Your task to perform on an android device: Open Yahoo.com Image 0: 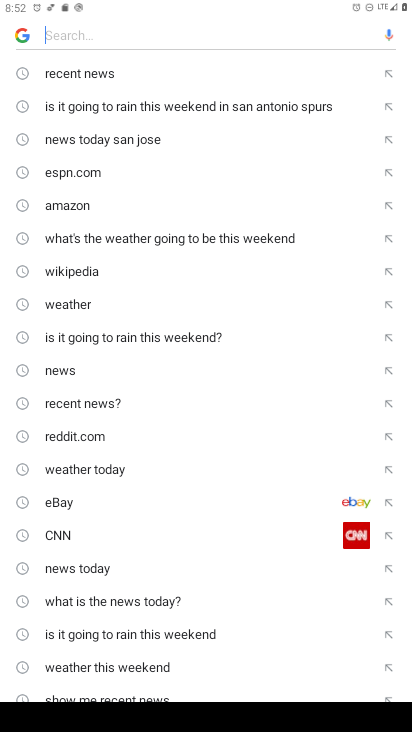
Step 0: press home button
Your task to perform on an android device: Open Yahoo.com Image 1: 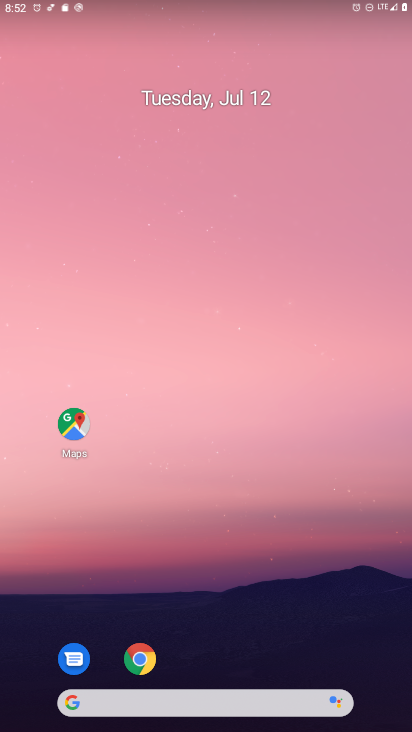
Step 1: click (141, 657)
Your task to perform on an android device: Open Yahoo.com Image 2: 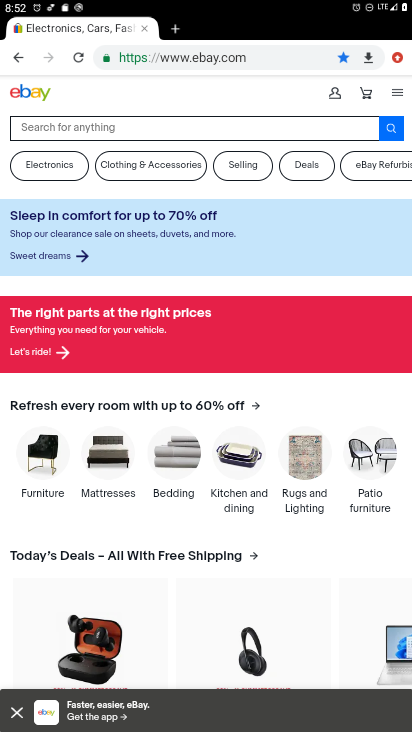
Step 2: click (259, 52)
Your task to perform on an android device: Open Yahoo.com Image 3: 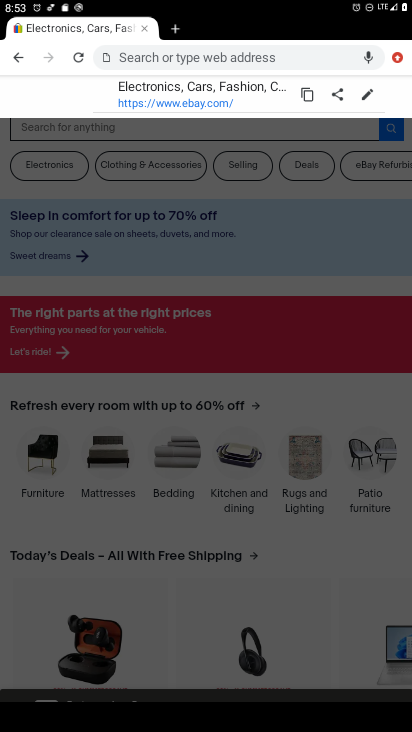
Step 3: type "Yahoo.com"
Your task to perform on an android device: Open Yahoo.com Image 4: 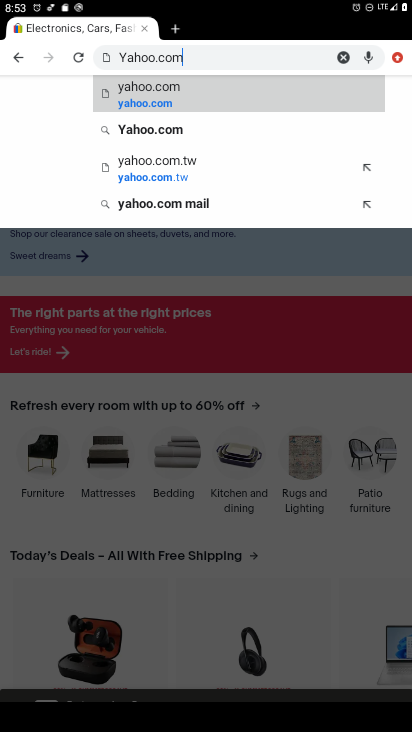
Step 4: click (171, 128)
Your task to perform on an android device: Open Yahoo.com Image 5: 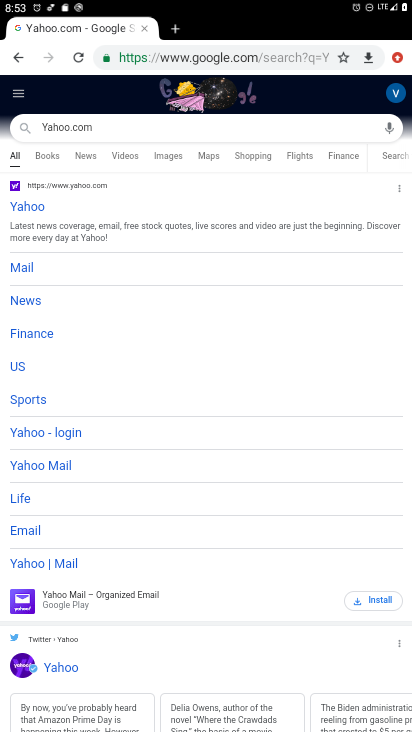
Step 5: click (38, 209)
Your task to perform on an android device: Open Yahoo.com Image 6: 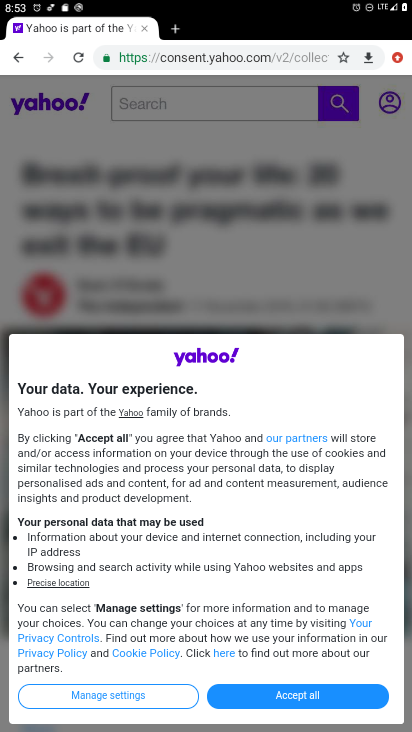
Step 6: click (258, 699)
Your task to perform on an android device: Open Yahoo.com Image 7: 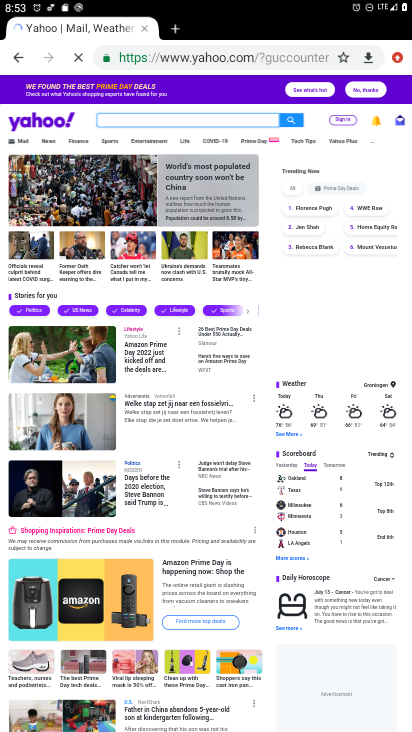
Step 7: task complete